Your task to perform on an android device: Check the news Image 0: 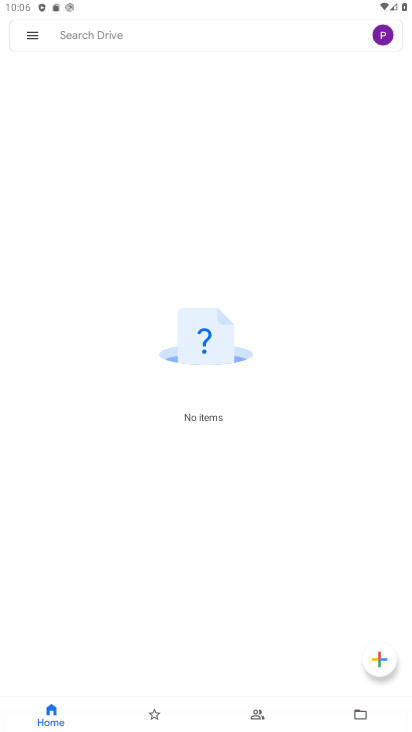
Step 0: press home button
Your task to perform on an android device: Check the news Image 1: 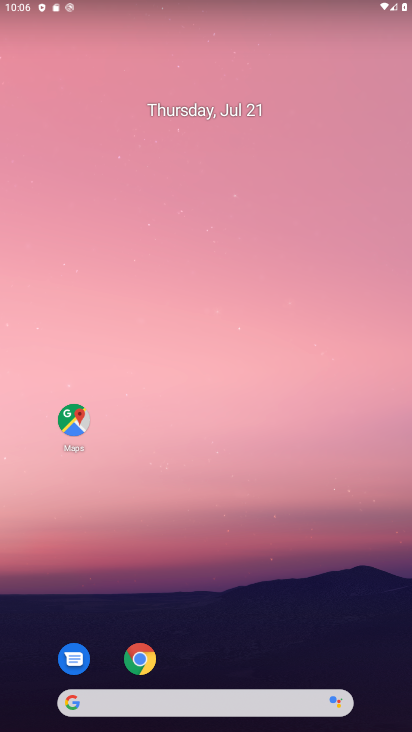
Step 1: task complete